Your task to perform on an android device: Open Chrome and go to settings Image 0: 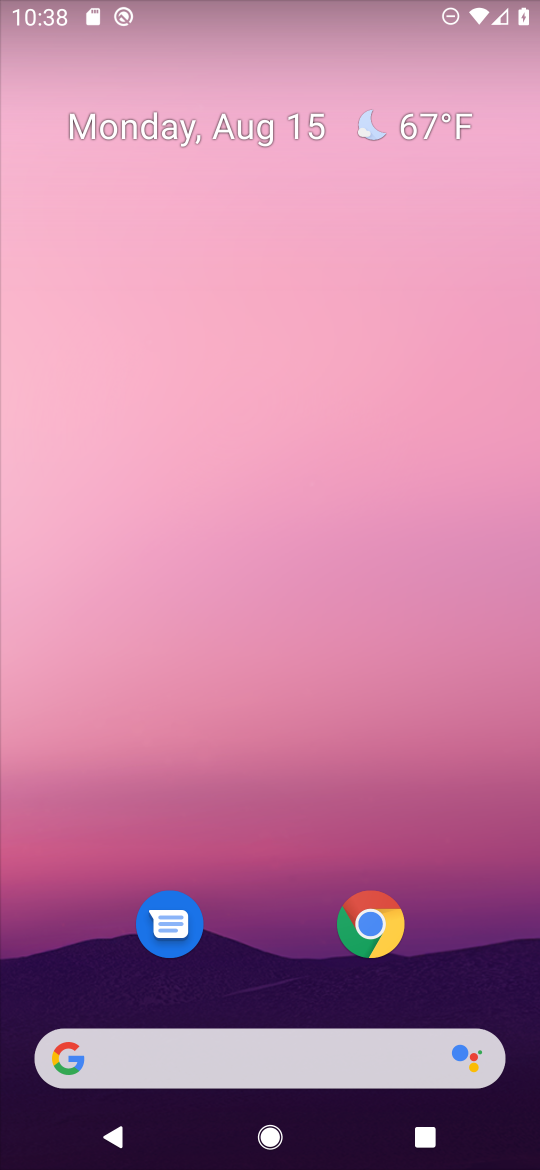
Step 0: click (372, 925)
Your task to perform on an android device: Open Chrome and go to settings Image 1: 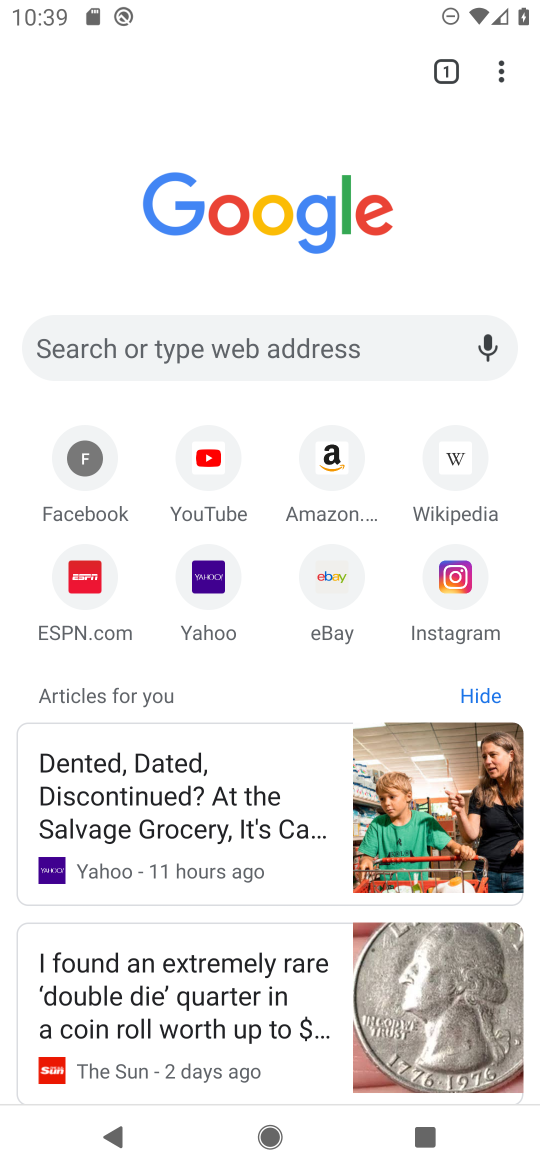
Step 1: click (494, 76)
Your task to perform on an android device: Open Chrome and go to settings Image 2: 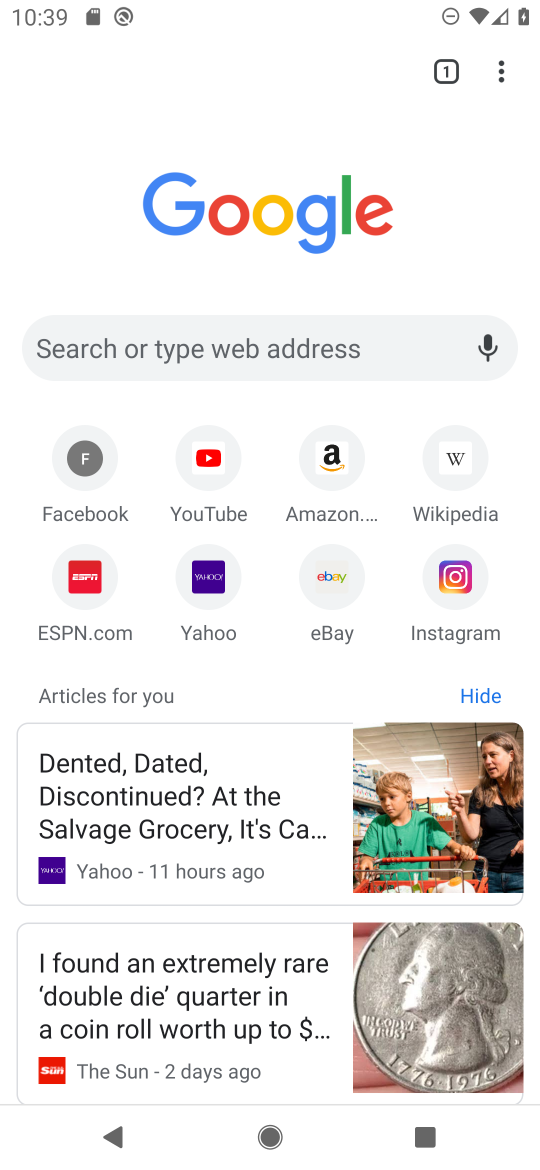
Step 2: click (503, 84)
Your task to perform on an android device: Open Chrome and go to settings Image 3: 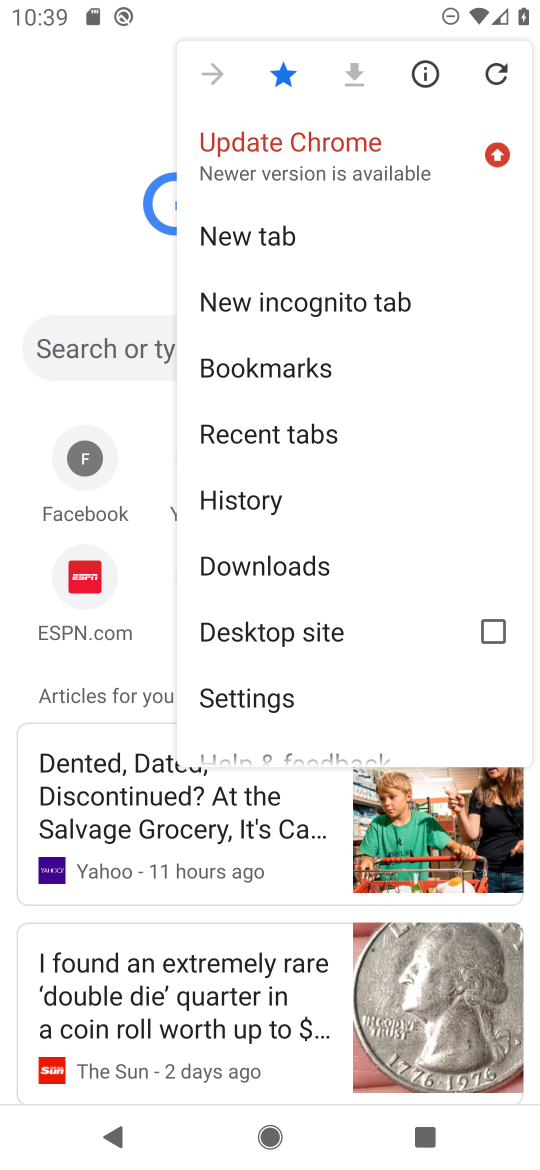
Step 3: click (237, 689)
Your task to perform on an android device: Open Chrome and go to settings Image 4: 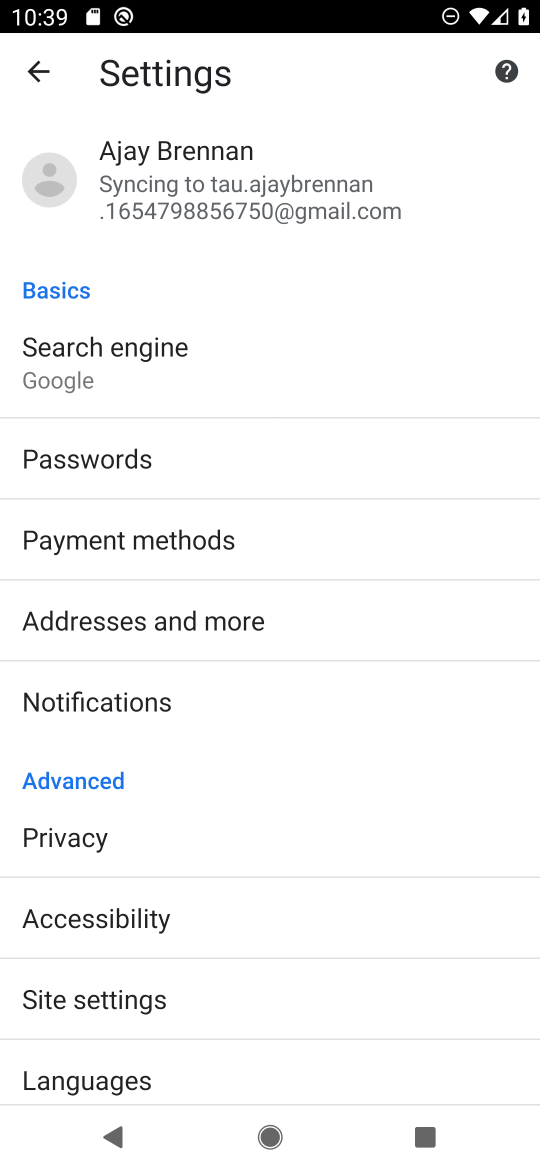
Step 4: task complete